Your task to perform on an android device: Open Youtube and go to the subscriptions tab Image 0: 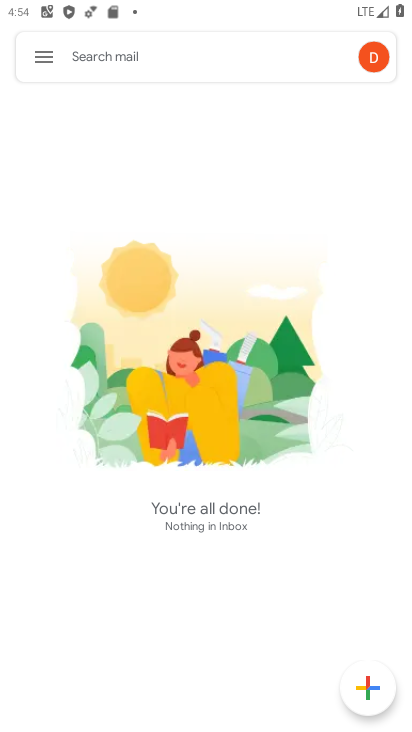
Step 0: press back button
Your task to perform on an android device: Open Youtube and go to the subscriptions tab Image 1: 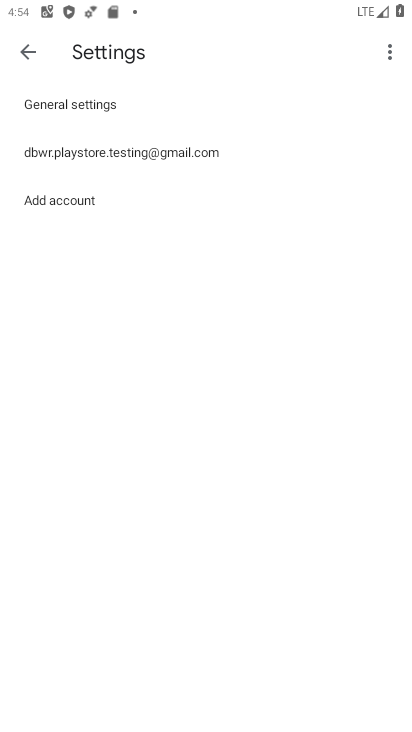
Step 1: press back button
Your task to perform on an android device: Open Youtube and go to the subscriptions tab Image 2: 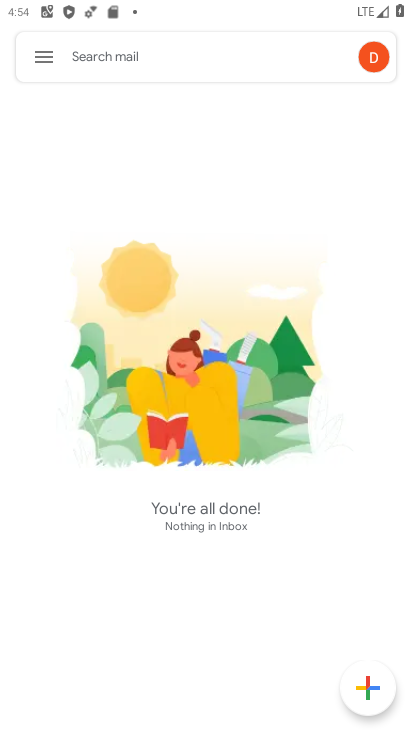
Step 2: press back button
Your task to perform on an android device: Open Youtube and go to the subscriptions tab Image 3: 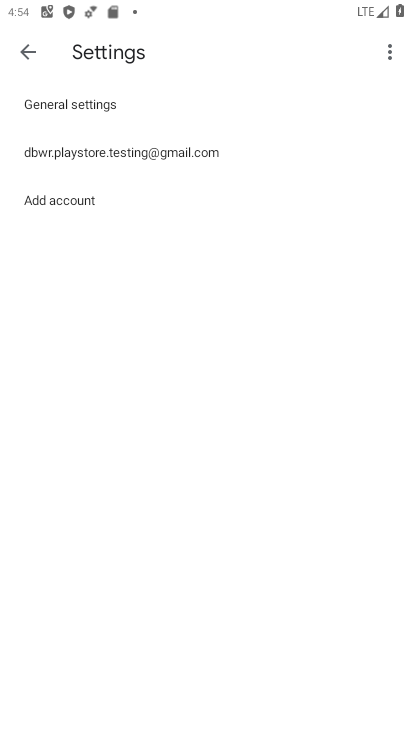
Step 3: press back button
Your task to perform on an android device: Open Youtube and go to the subscriptions tab Image 4: 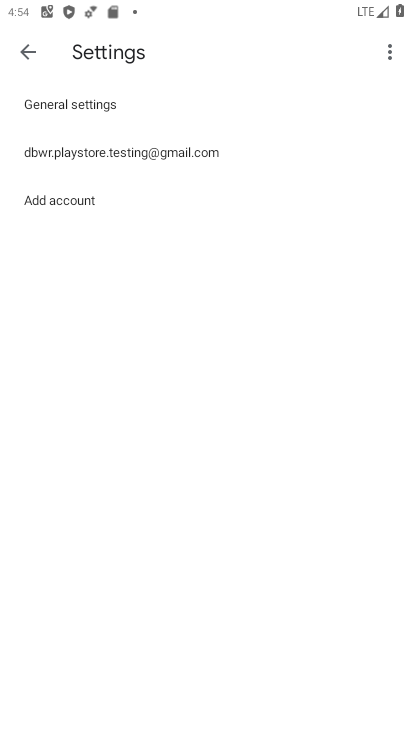
Step 4: press back button
Your task to perform on an android device: Open Youtube and go to the subscriptions tab Image 5: 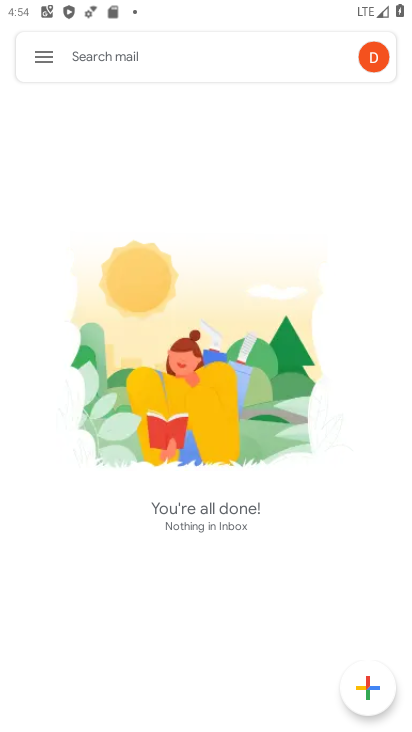
Step 5: press back button
Your task to perform on an android device: Open Youtube and go to the subscriptions tab Image 6: 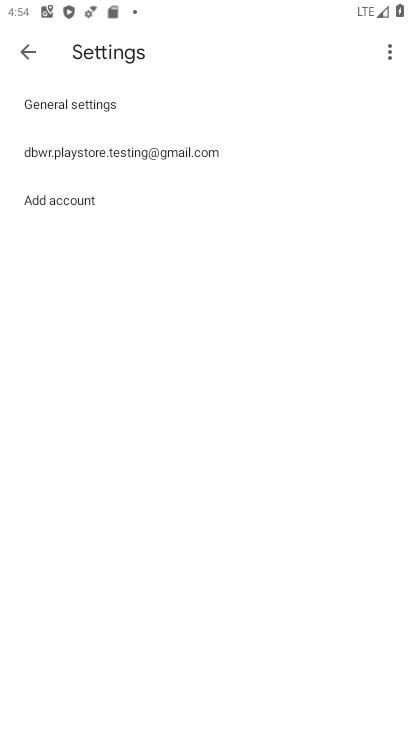
Step 6: press back button
Your task to perform on an android device: Open Youtube and go to the subscriptions tab Image 7: 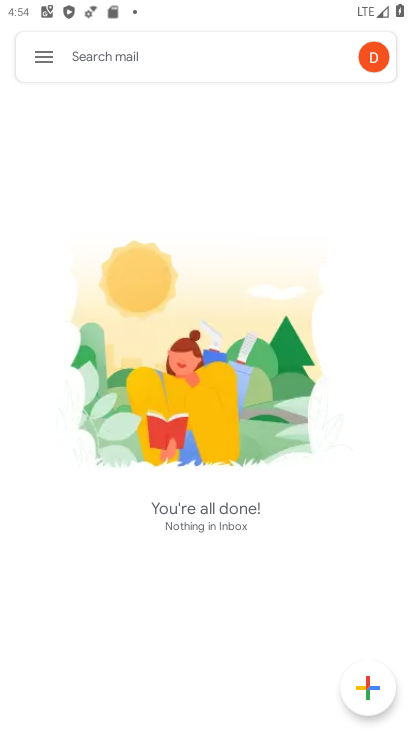
Step 7: press back button
Your task to perform on an android device: Open Youtube and go to the subscriptions tab Image 8: 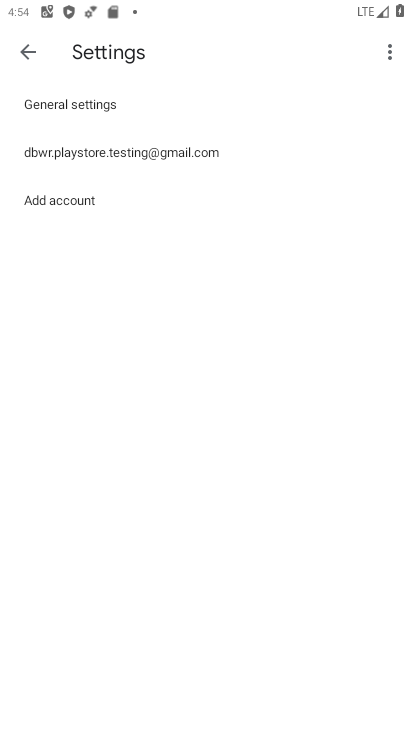
Step 8: press back button
Your task to perform on an android device: Open Youtube and go to the subscriptions tab Image 9: 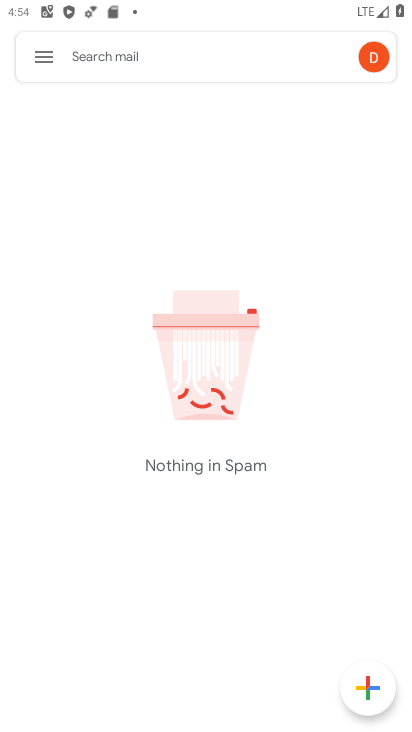
Step 9: press back button
Your task to perform on an android device: Open Youtube and go to the subscriptions tab Image 10: 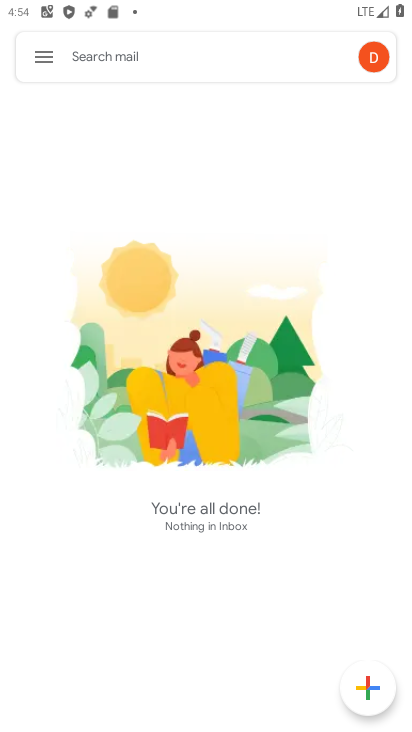
Step 10: press back button
Your task to perform on an android device: Open Youtube and go to the subscriptions tab Image 11: 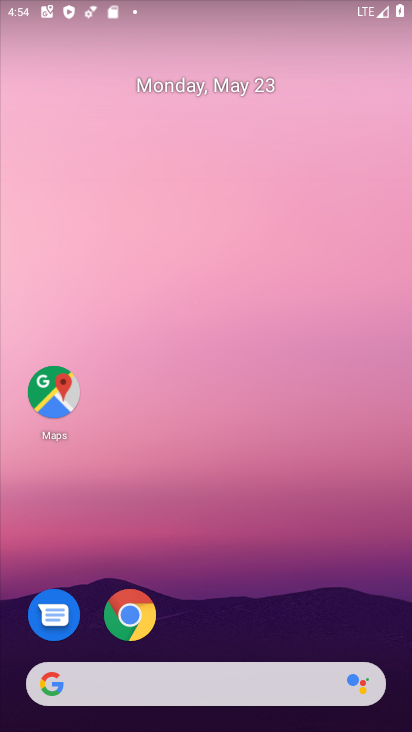
Step 11: drag from (356, 411) to (0, 416)
Your task to perform on an android device: Open Youtube and go to the subscriptions tab Image 12: 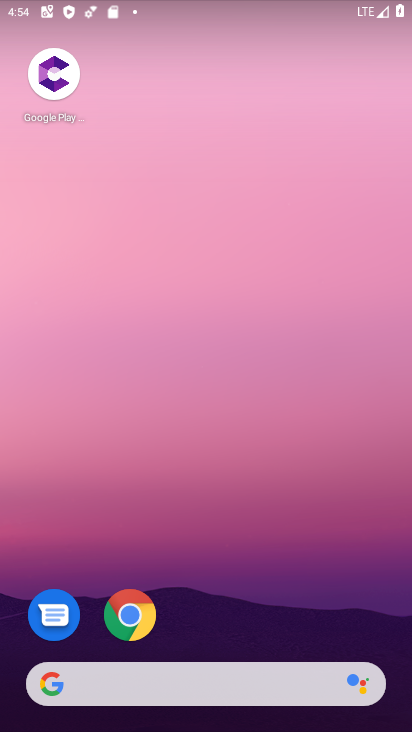
Step 12: drag from (334, 393) to (0, 417)
Your task to perform on an android device: Open Youtube and go to the subscriptions tab Image 13: 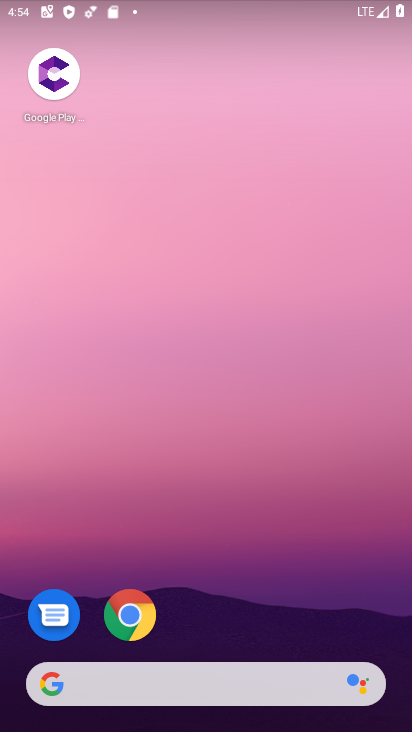
Step 13: drag from (392, 415) to (1, 420)
Your task to perform on an android device: Open Youtube and go to the subscriptions tab Image 14: 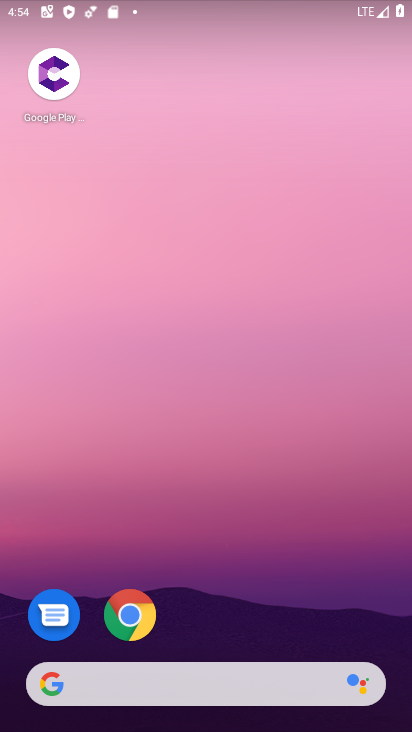
Step 14: drag from (226, 552) to (222, 36)
Your task to perform on an android device: Open Youtube and go to the subscriptions tab Image 15: 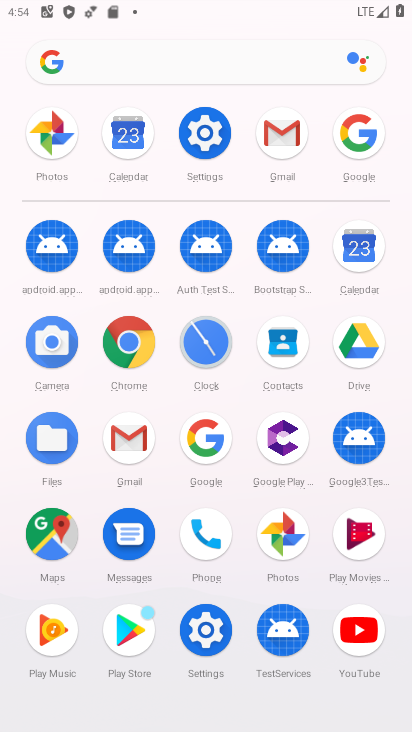
Step 15: click (353, 632)
Your task to perform on an android device: Open Youtube and go to the subscriptions tab Image 16: 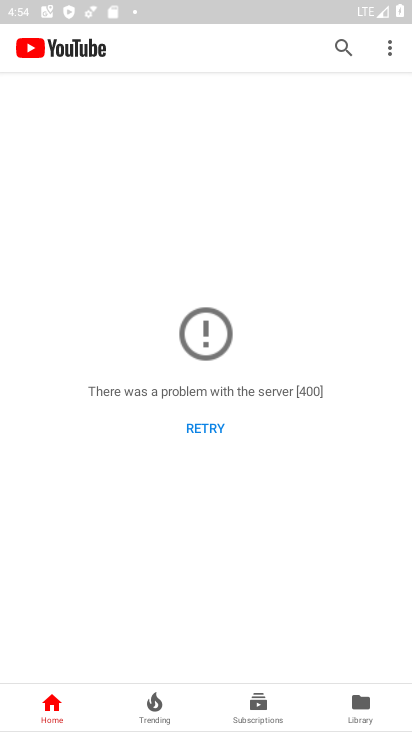
Step 16: click (277, 705)
Your task to perform on an android device: Open Youtube and go to the subscriptions tab Image 17: 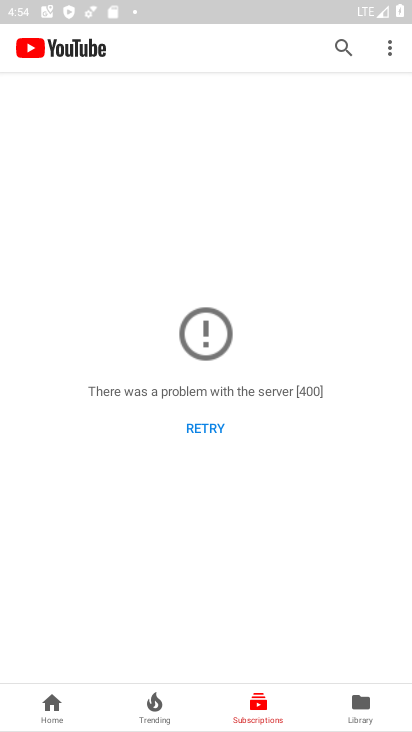
Step 17: task complete